Your task to perform on an android device: change timer sound Image 0: 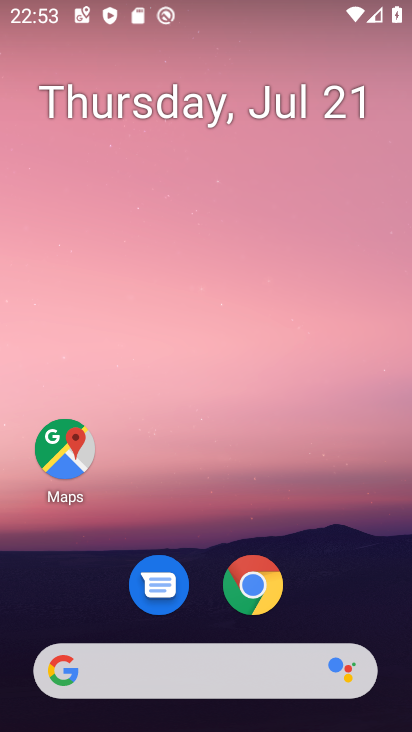
Step 0: drag from (216, 681) to (401, 160)
Your task to perform on an android device: change timer sound Image 1: 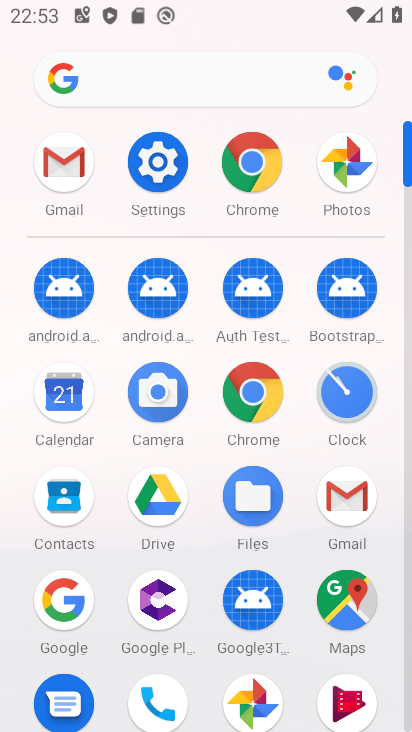
Step 1: drag from (306, 433) to (378, 195)
Your task to perform on an android device: change timer sound Image 2: 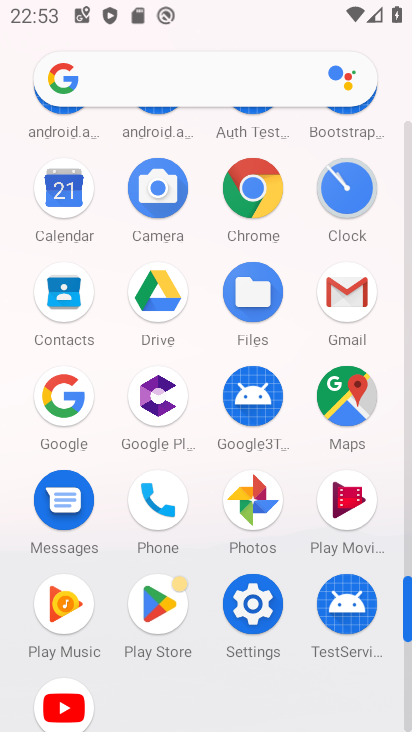
Step 2: drag from (218, 485) to (264, 127)
Your task to perform on an android device: change timer sound Image 3: 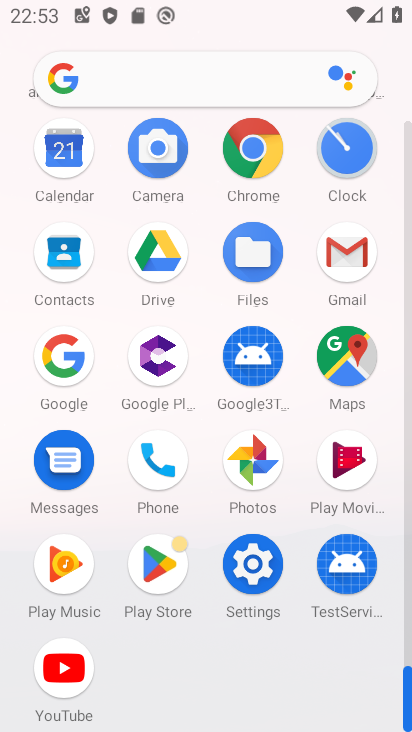
Step 3: click (343, 154)
Your task to perform on an android device: change timer sound Image 4: 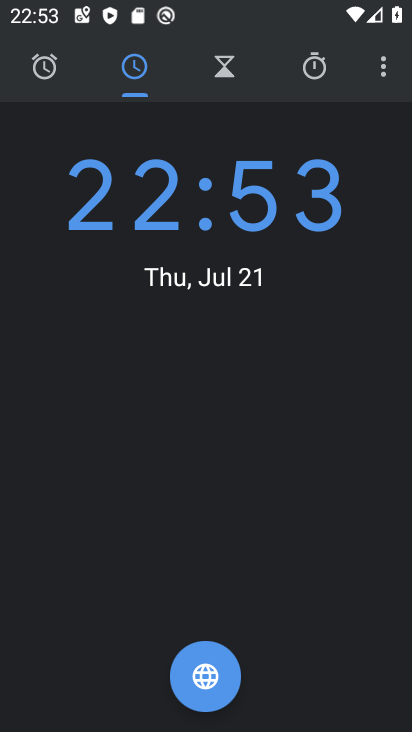
Step 4: click (382, 68)
Your task to perform on an android device: change timer sound Image 5: 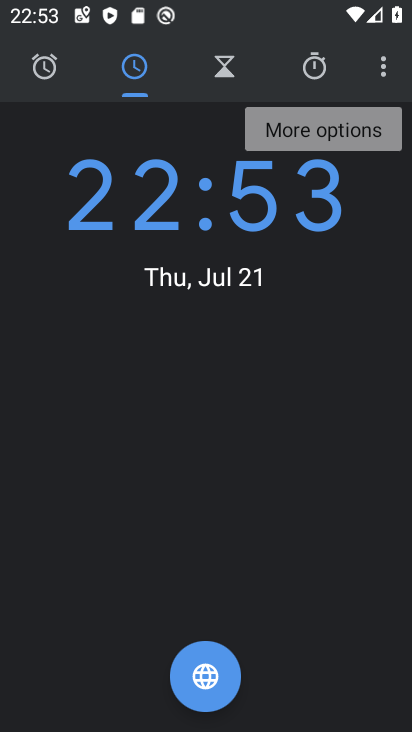
Step 5: click (390, 63)
Your task to perform on an android device: change timer sound Image 6: 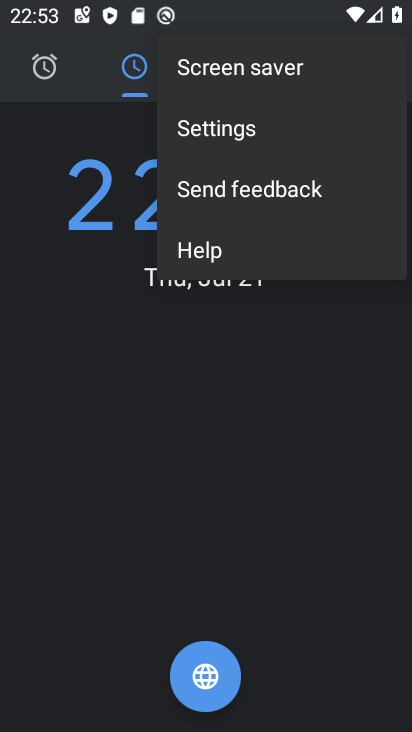
Step 6: click (228, 136)
Your task to perform on an android device: change timer sound Image 7: 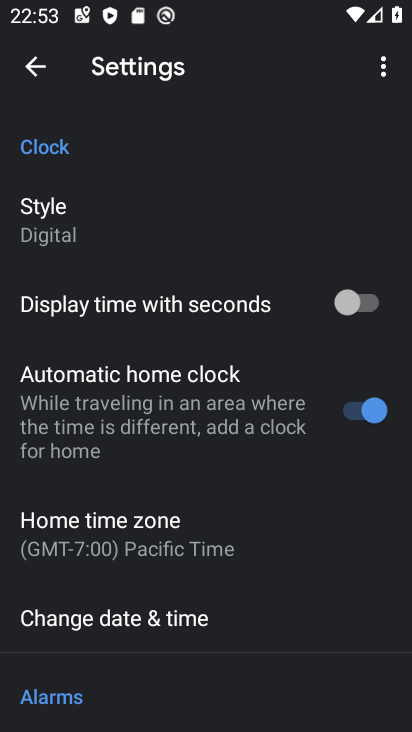
Step 7: drag from (235, 549) to (356, 182)
Your task to perform on an android device: change timer sound Image 8: 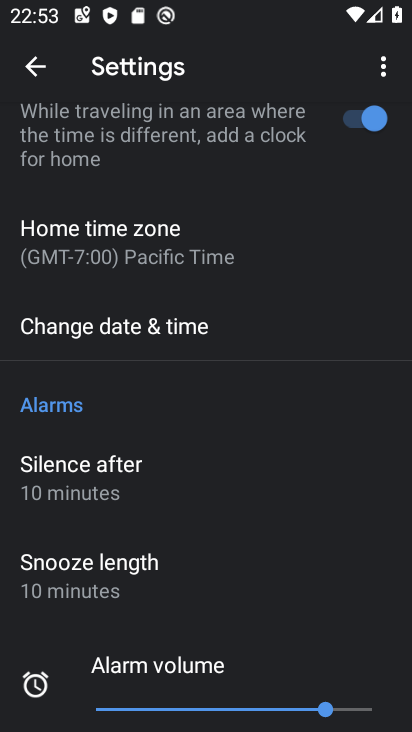
Step 8: click (107, 562)
Your task to perform on an android device: change timer sound Image 9: 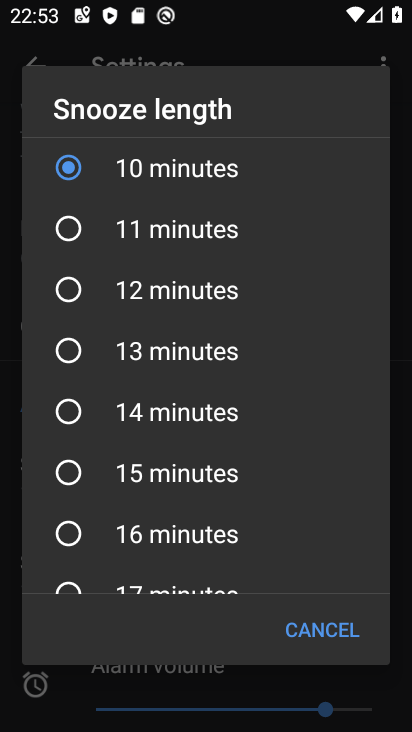
Step 9: click (78, 475)
Your task to perform on an android device: change timer sound Image 10: 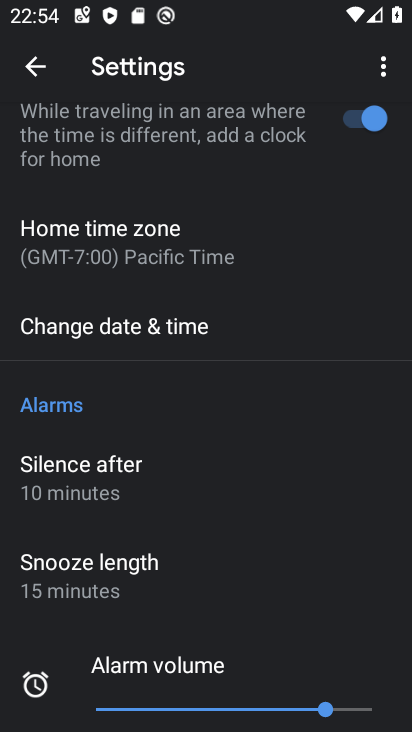
Step 10: task complete